Your task to perform on an android device: uninstall "Microsoft Excel" Image 0: 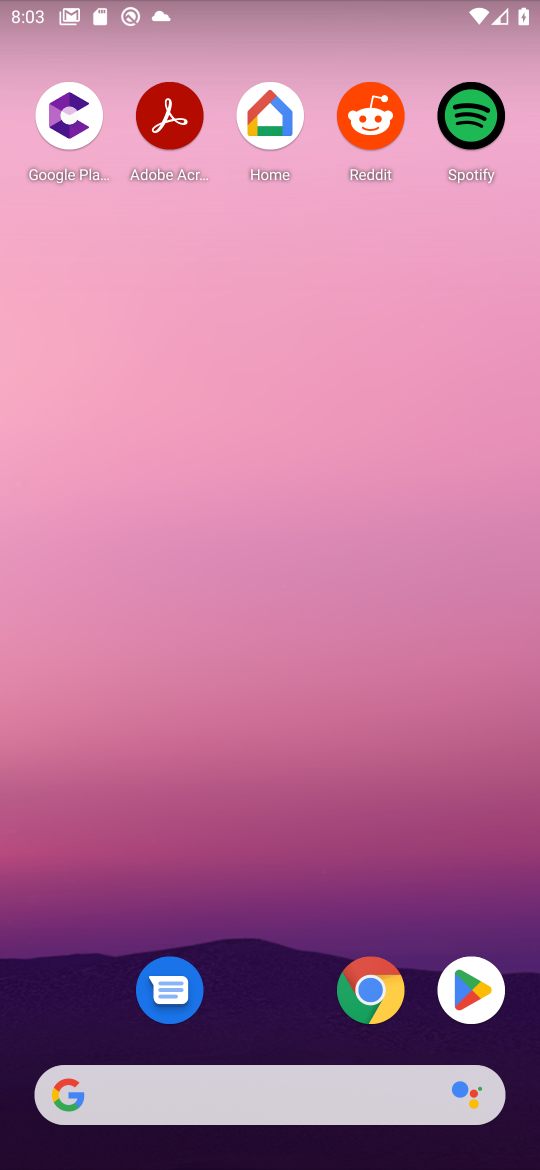
Step 0: press home button
Your task to perform on an android device: uninstall "Microsoft Excel" Image 1: 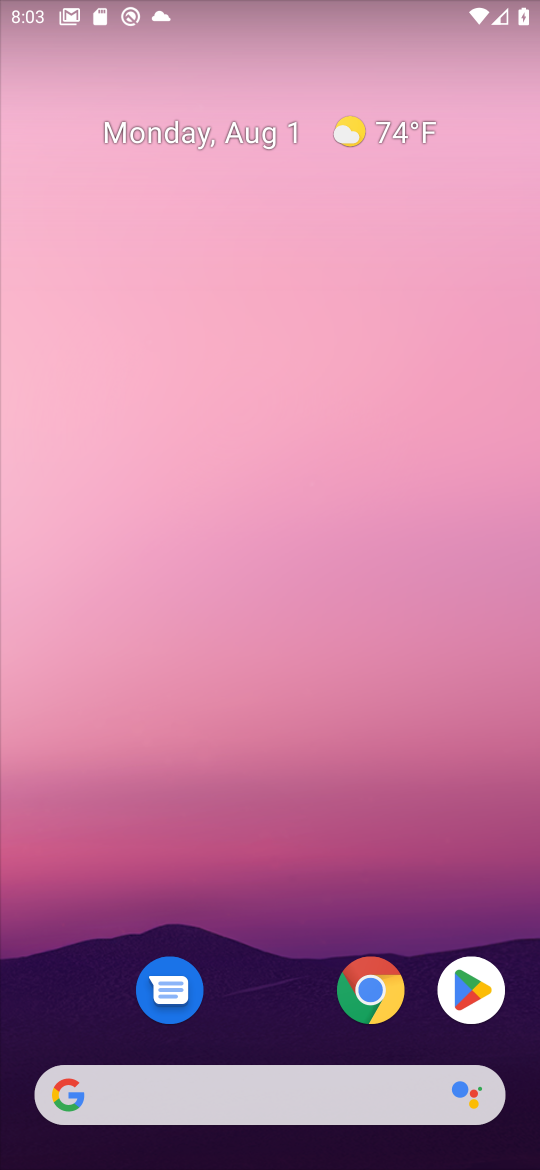
Step 1: click (473, 973)
Your task to perform on an android device: uninstall "Microsoft Excel" Image 2: 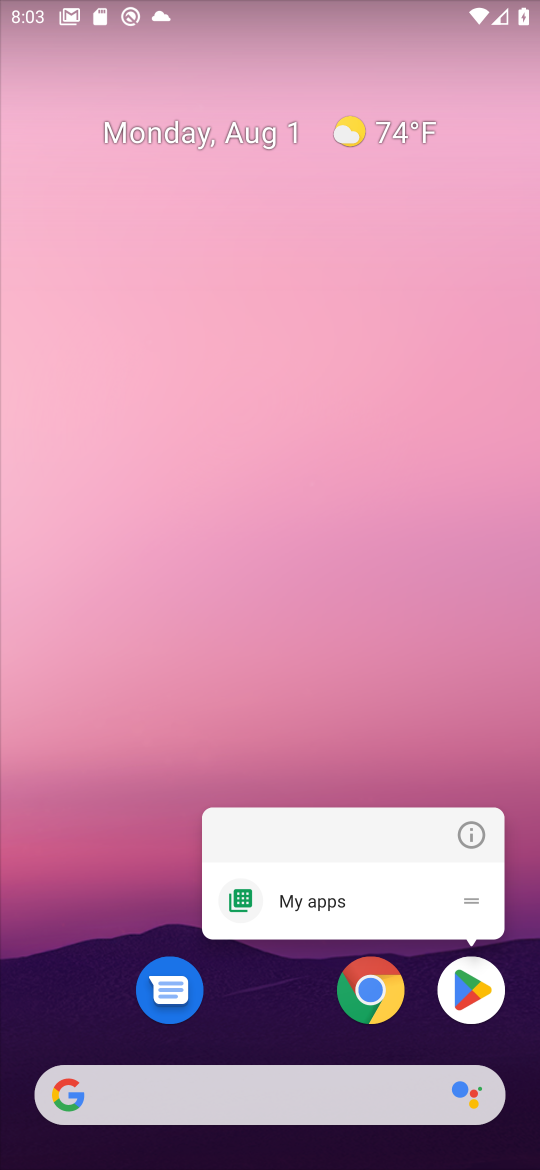
Step 2: click (454, 992)
Your task to perform on an android device: uninstall "Microsoft Excel" Image 3: 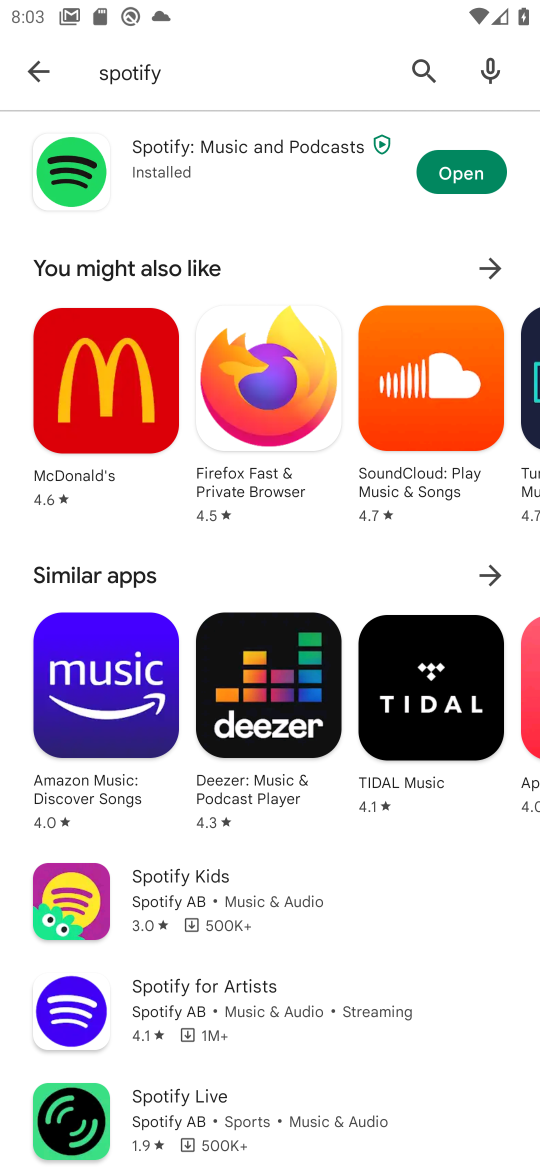
Step 3: click (416, 64)
Your task to perform on an android device: uninstall "Microsoft Excel" Image 4: 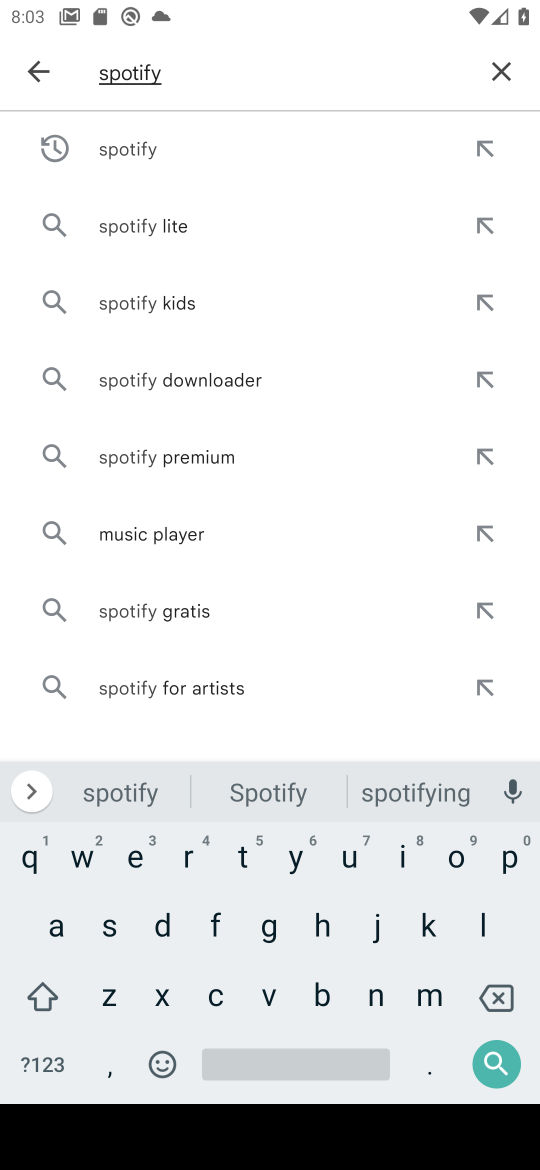
Step 4: click (499, 65)
Your task to perform on an android device: uninstall "Microsoft Excel" Image 5: 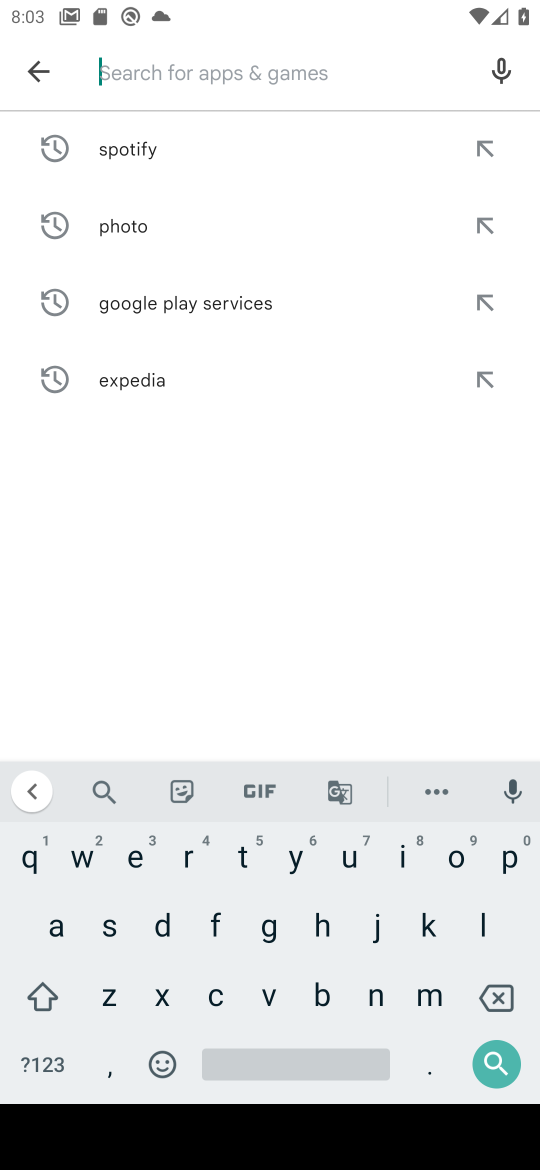
Step 5: click (131, 864)
Your task to perform on an android device: uninstall "Microsoft Excel" Image 6: 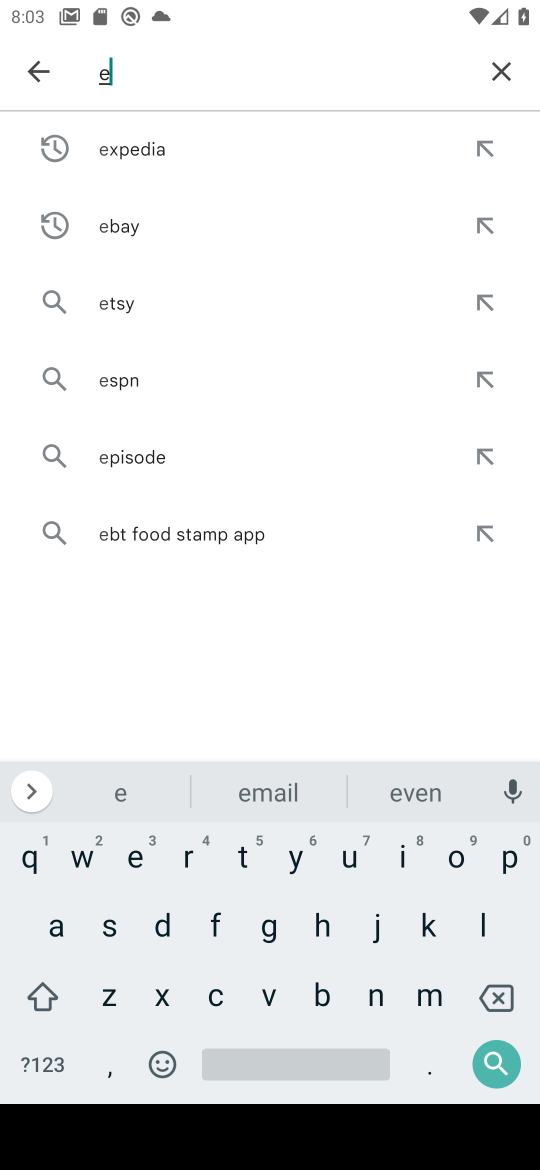
Step 6: click (158, 996)
Your task to perform on an android device: uninstall "Microsoft Excel" Image 7: 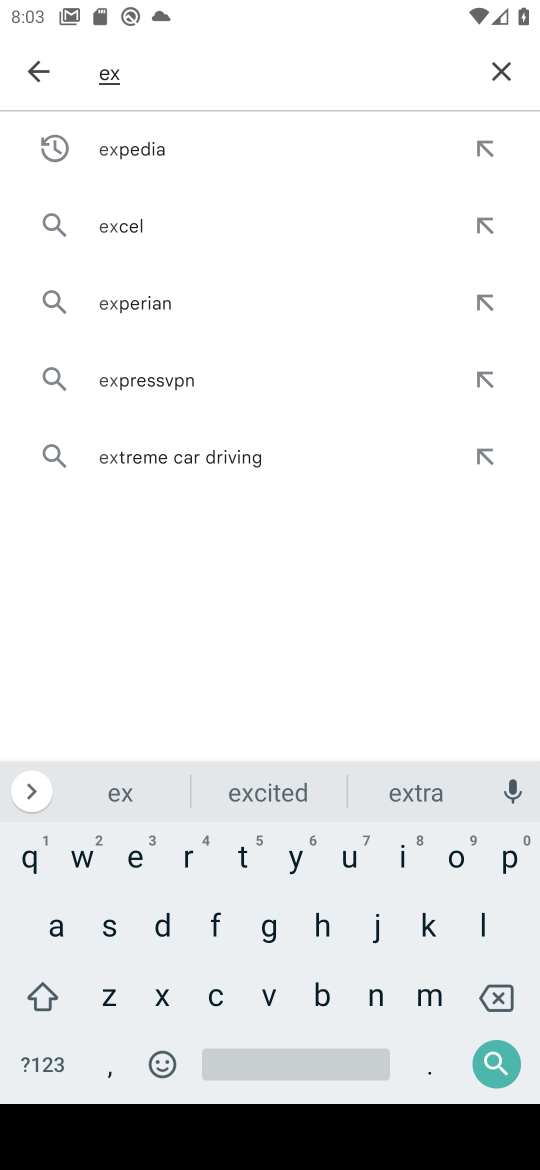
Step 7: click (138, 217)
Your task to perform on an android device: uninstall "Microsoft Excel" Image 8: 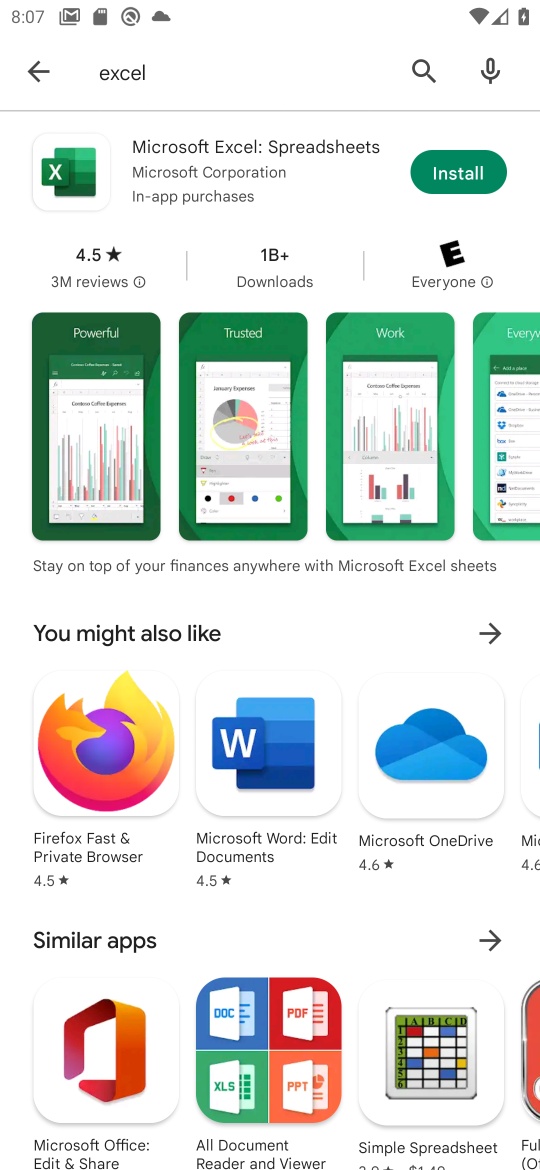
Step 8: task complete